Your task to perform on an android device: Open network settings Image 0: 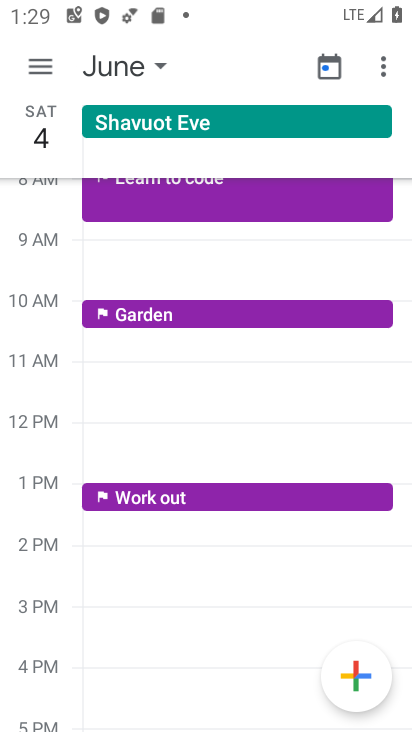
Step 0: press home button
Your task to perform on an android device: Open network settings Image 1: 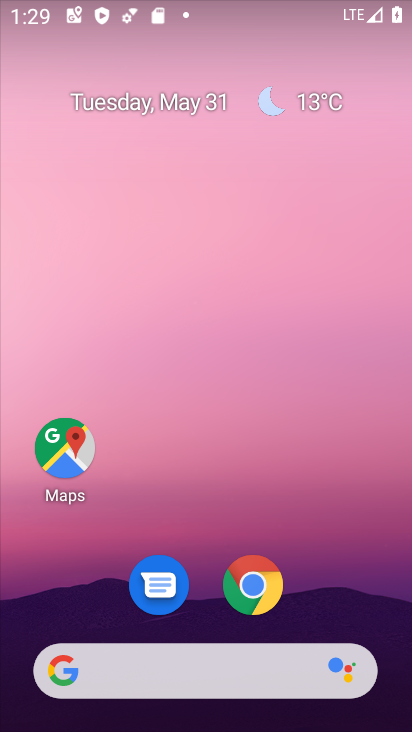
Step 1: drag from (263, 520) to (234, 25)
Your task to perform on an android device: Open network settings Image 2: 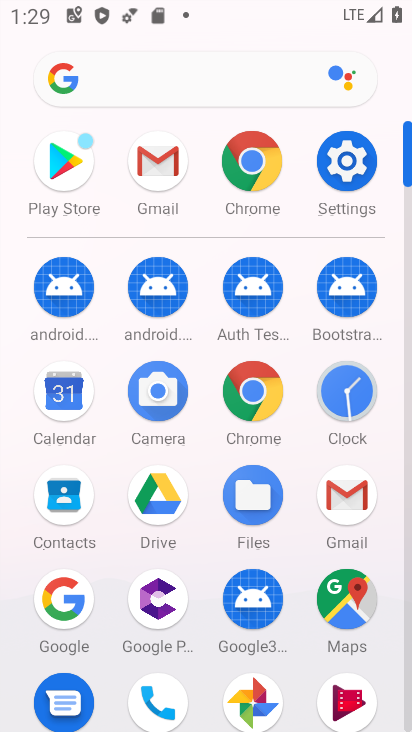
Step 2: click (332, 155)
Your task to perform on an android device: Open network settings Image 3: 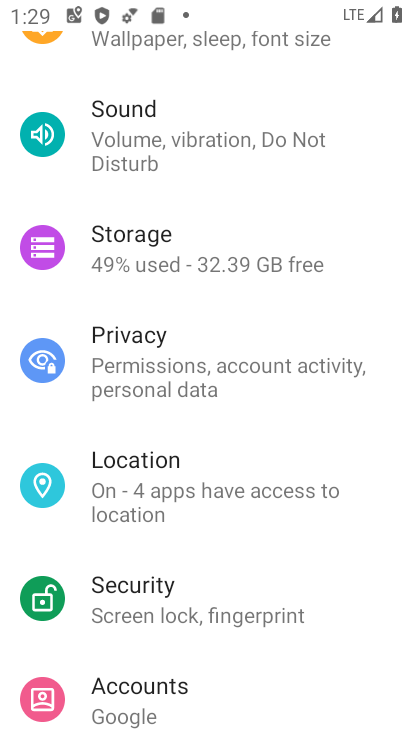
Step 3: drag from (283, 192) to (252, 631)
Your task to perform on an android device: Open network settings Image 4: 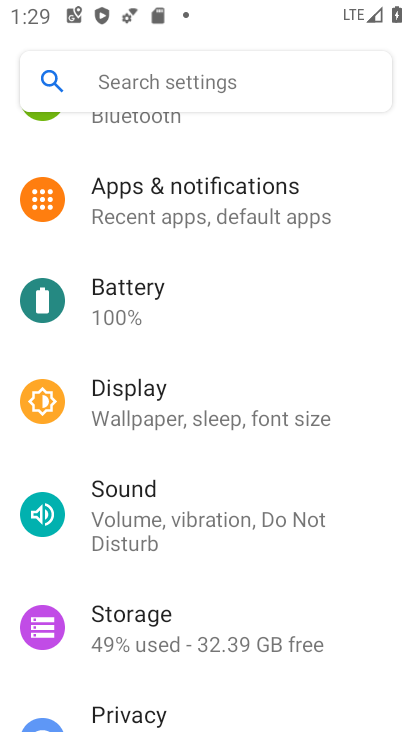
Step 4: drag from (251, 248) to (280, 651)
Your task to perform on an android device: Open network settings Image 5: 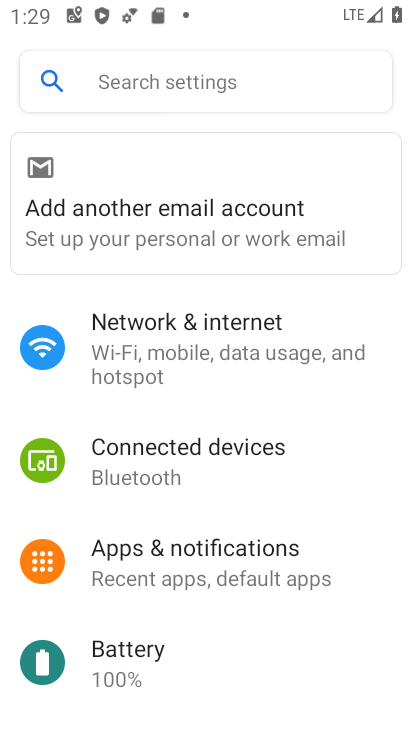
Step 5: click (274, 359)
Your task to perform on an android device: Open network settings Image 6: 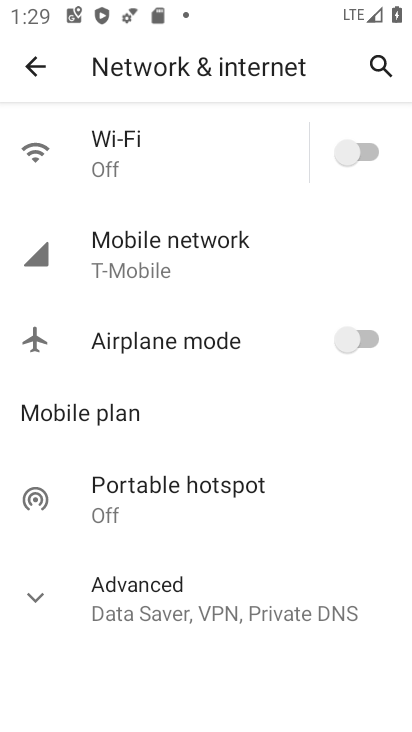
Step 6: task complete